Your task to perform on an android device: Open Youtube and go to the subscriptions tab Image 0: 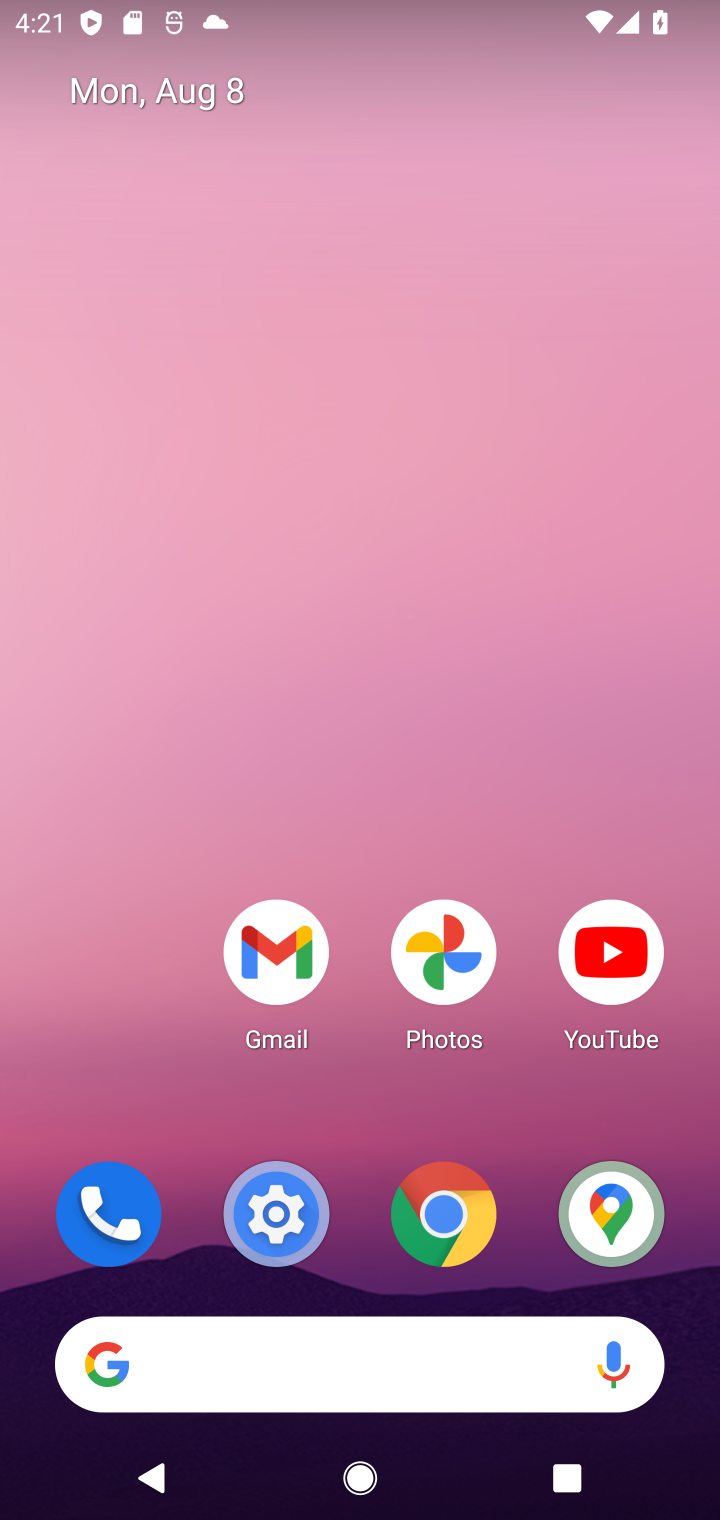
Step 0: click (622, 965)
Your task to perform on an android device: Open Youtube and go to the subscriptions tab Image 1: 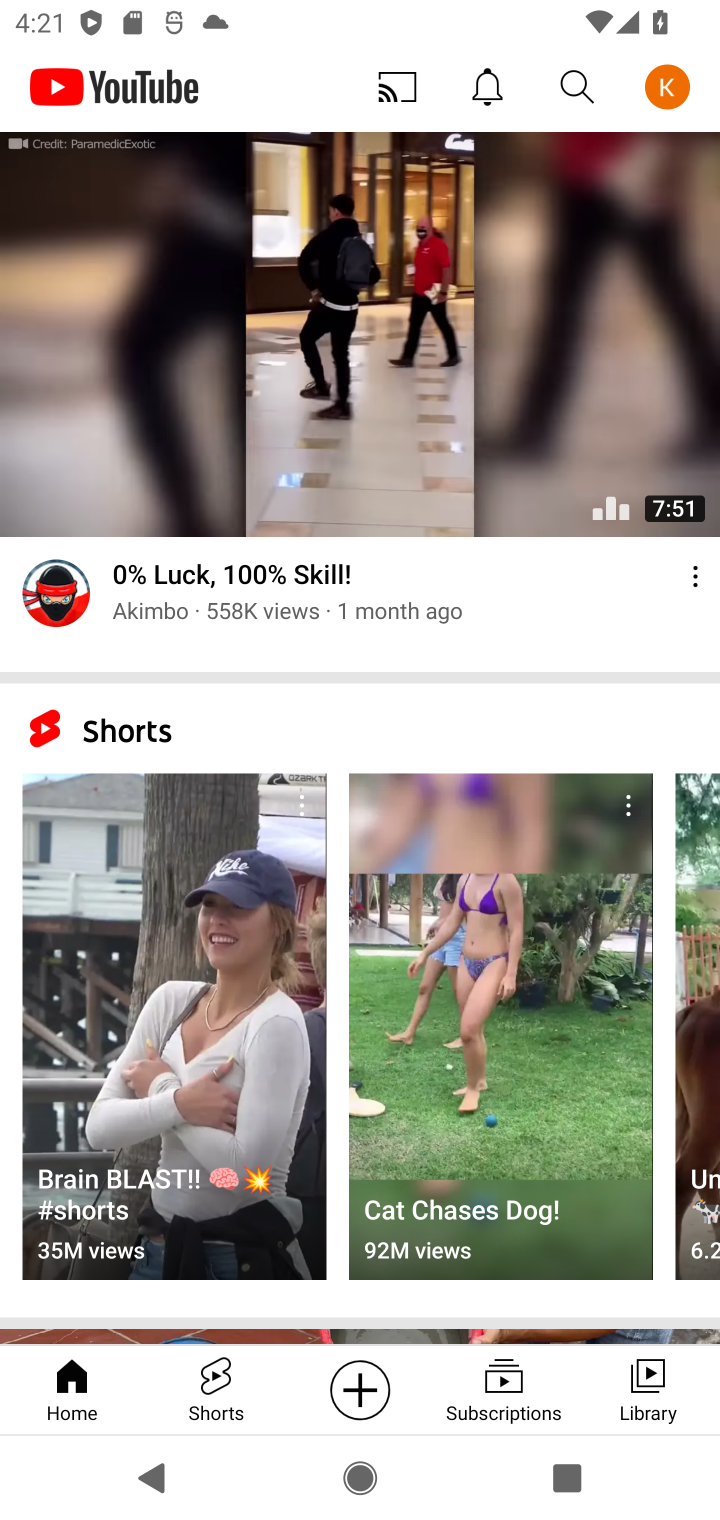
Step 1: click (519, 1386)
Your task to perform on an android device: Open Youtube and go to the subscriptions tab Image 2: 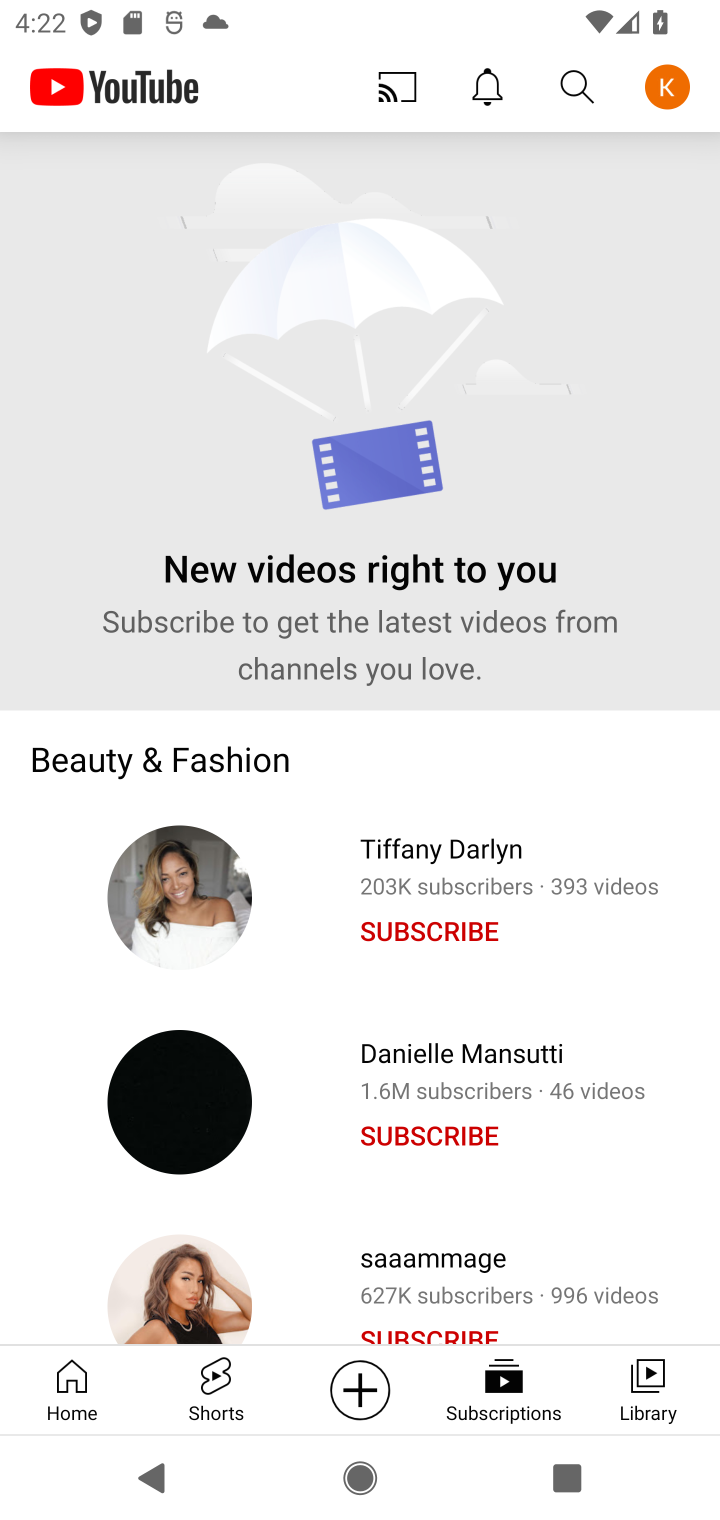
Step 2: task complete